Your task to perform on an android device: Open calendar and show me the fourth week of next month Image 0: 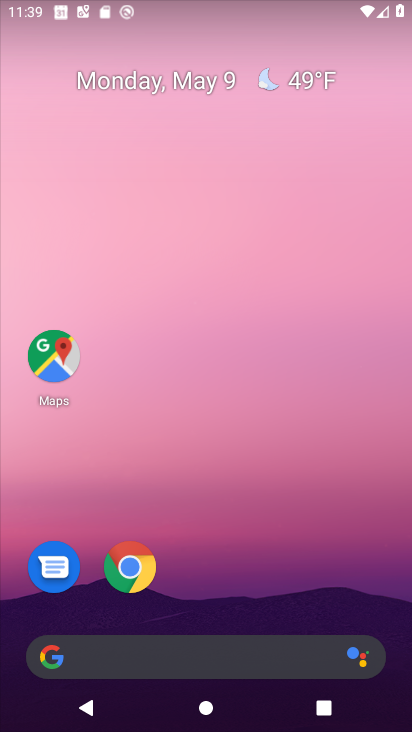
Step 0: press home button
Your task to perform on an android device: Open calendar and show me the fourth week of next month Image 1: 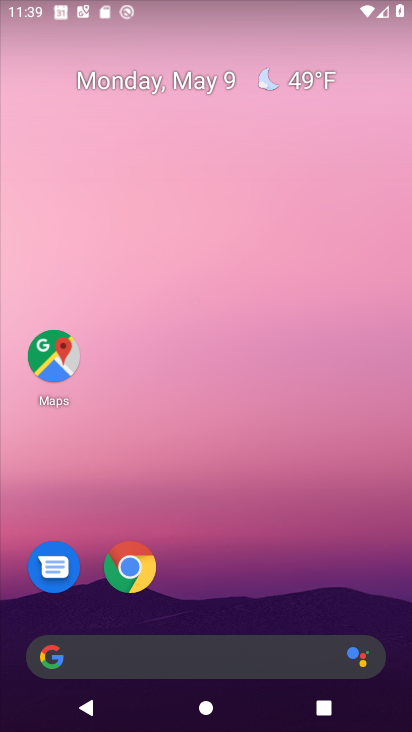
Step 1: drag from (189, 622) to (189, 214)
Your task to perform on an android device: Open calendar and show me the fourth week of next month Image 2: 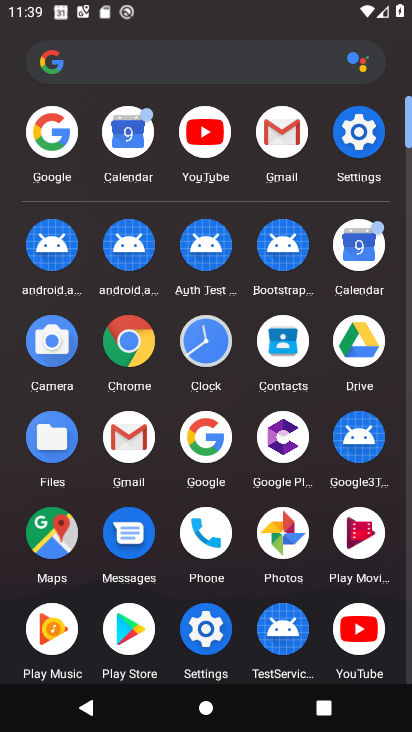
Step 2: click (351, 240)
Your task to perform on an android device: Open calendar and show me the fourth week of next month Image 3: 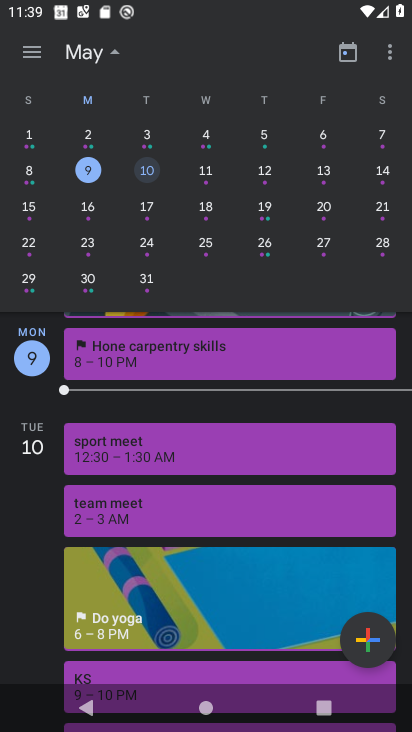
Step 3: drag from (375, 179) to (20, 259)
Your task to perform on an android device: Open calendar and show me the fourth week of next month Image 4: 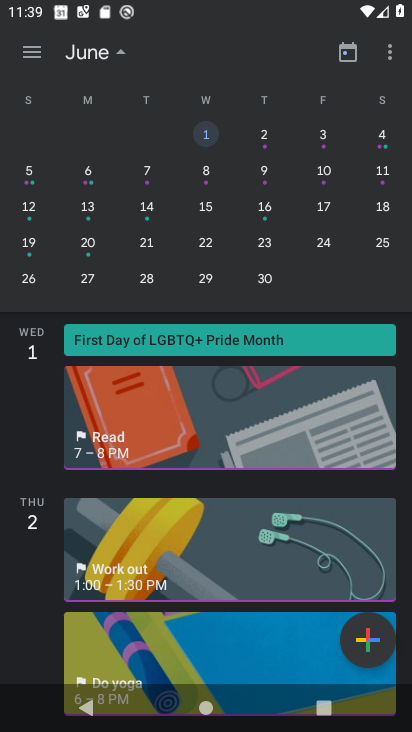
Step 4: click (32, 246)
Your task to perform on an android device: Open calendar and show me the fourth week of next month Image 5: 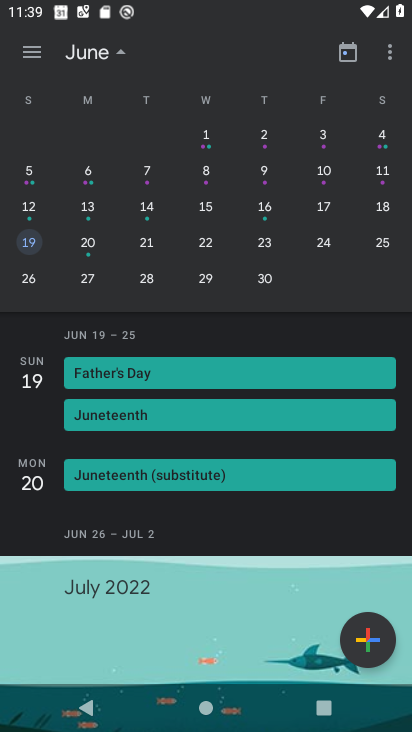
Step 5: task complete